Your task to perform on an android device: toggle priority inbox in the gmail app Image 0: 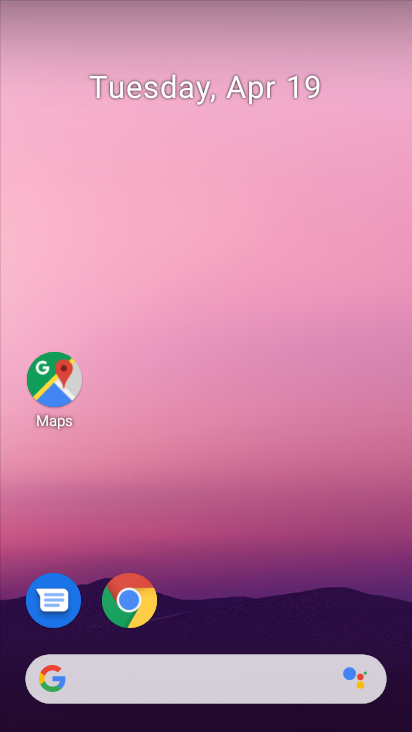
Step 0: press home button
Your task to perform on an android device: toggle priority inbox in the gmail app Image 1: 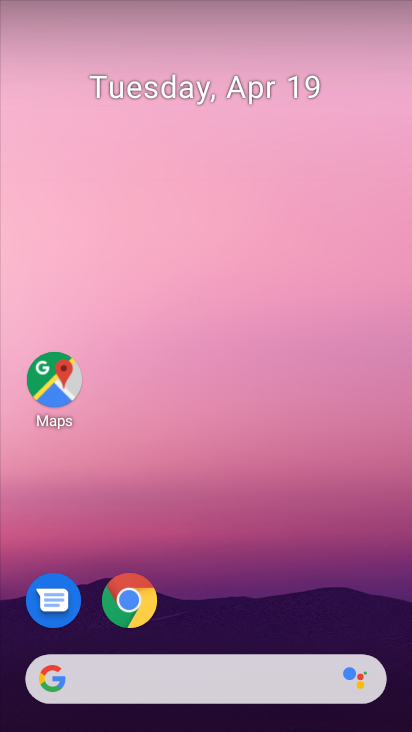
Step 1: drag from (263, 622) to (271, 34)
Your task to perform on an android device: toggle priority inbox in the gmail app Image 2: 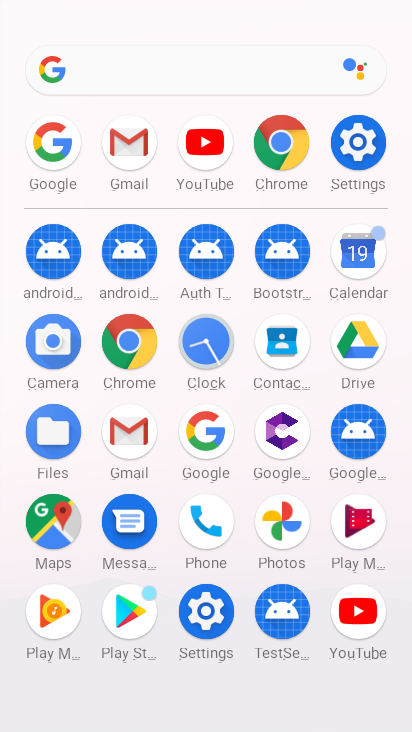
Step 2: click (126, 448)
Your task to perform on an android device: toggle priority inbox in the gmail app Image 3: 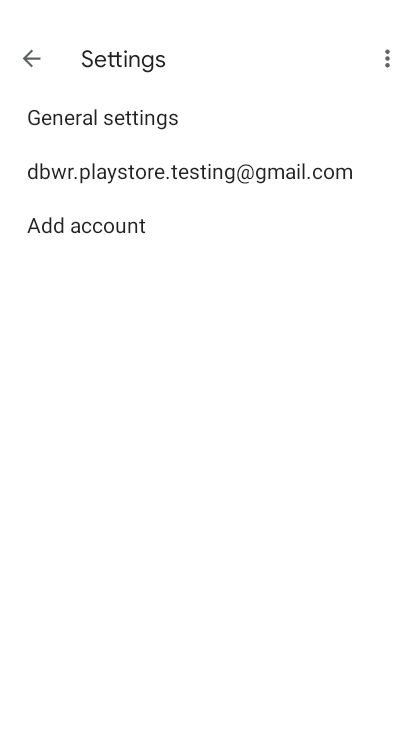
Step 3: click (241, 174)
Your task to perform on an android device: toggle priority inbox in the gmail app Image 4: 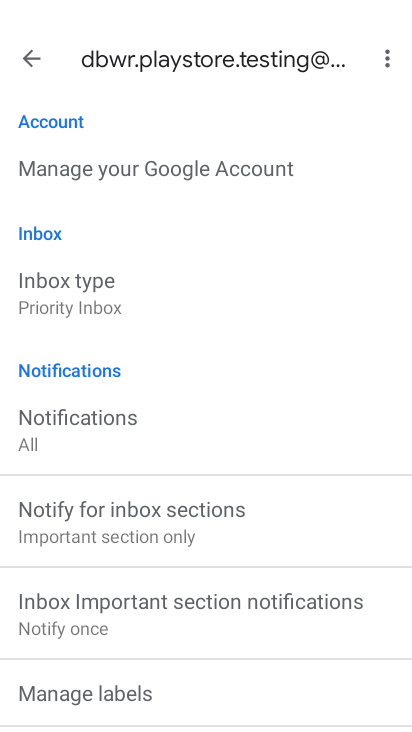
Step 4: click (156, 305)
Your task to perform on an android device: toggle priority inbox in the gmail app Image 5: 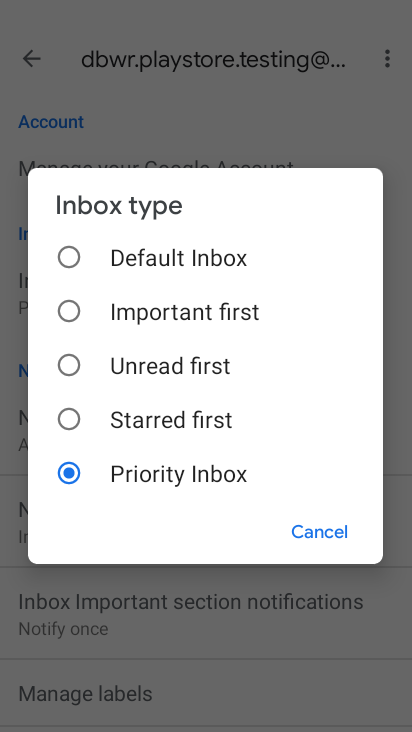
Step 5: click (156, 264)
Your task to perform on an android device: toggle priority inbox in the gmail app Image 6: 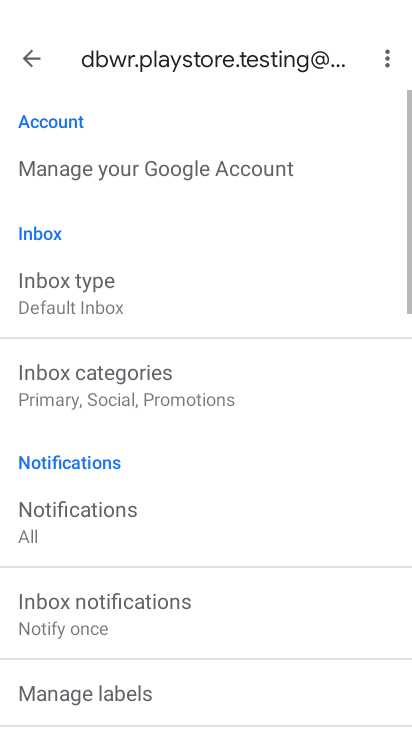
Step 6: task complete